Your task to perform on an android device: change the clock display to show seconds Image 0: 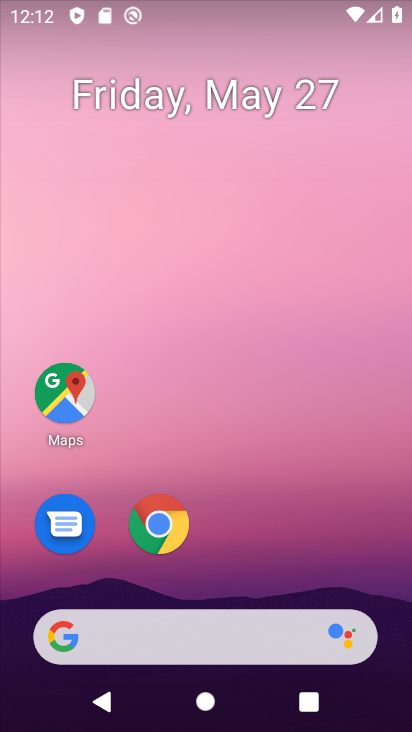
Step 0: drag from (268, 545) to (256, 50)
Your task to perform on an android device: change the clock display to show seconds Image 1: 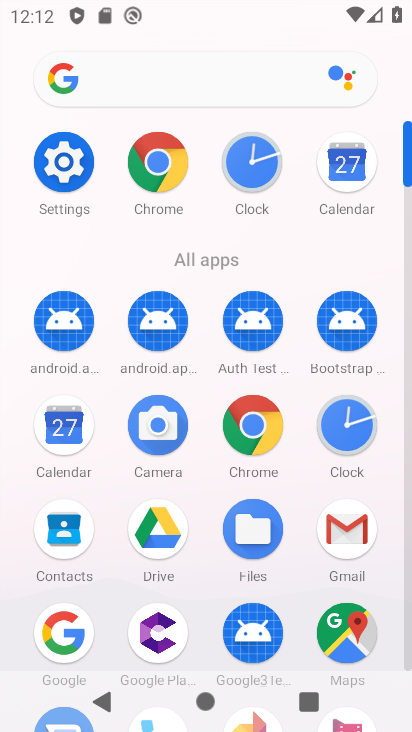
Step 1: click (260, 167)
Your task to perform on an android device: change the clock display to show seconds Image 2: 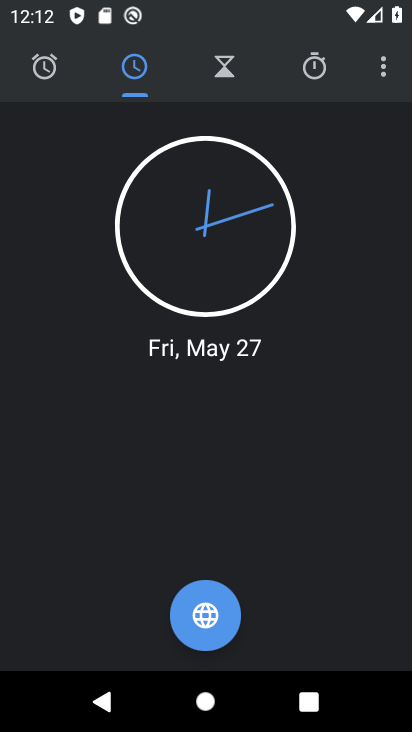
Step 2: click (383, 68)
Your task to perform on an android device: change the clock display to show seconds Image 3: 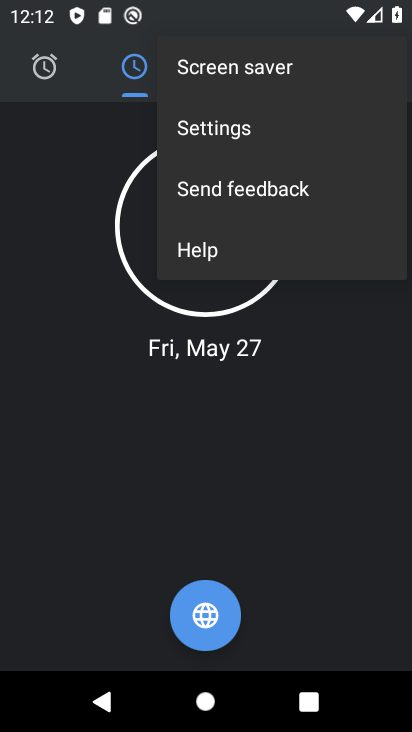
Step 3: click (301, 140)
Your task to perform on an android device: change the clock display to show seconds Image 4: 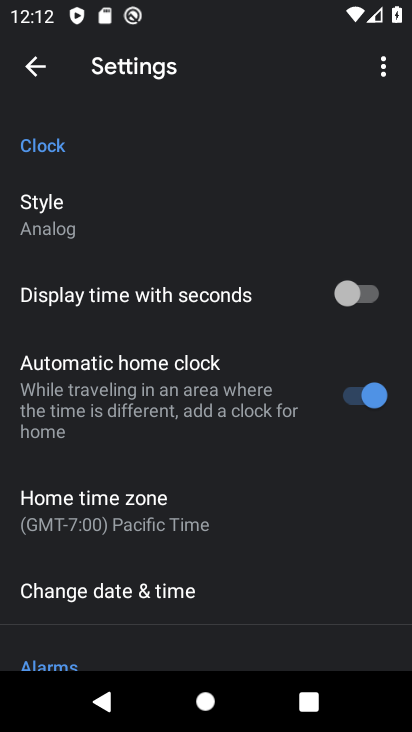
Step 4: click (358, 288)
Your task to perform on an android device: change the clock display to show seconds Image 5: 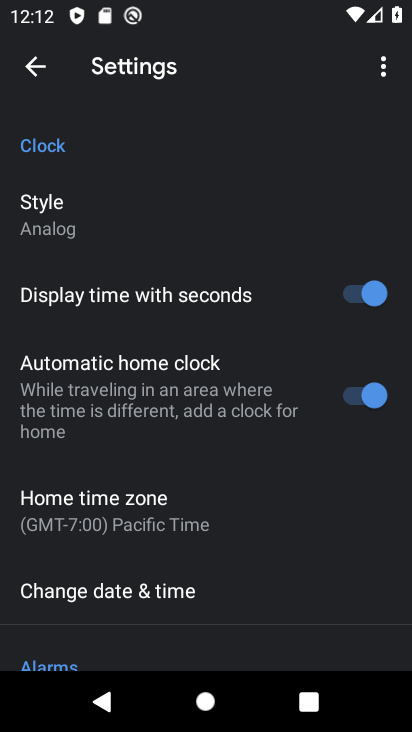
Step 5: task complete